Your task to perform on an android device: When is my next appointment? Image 0: 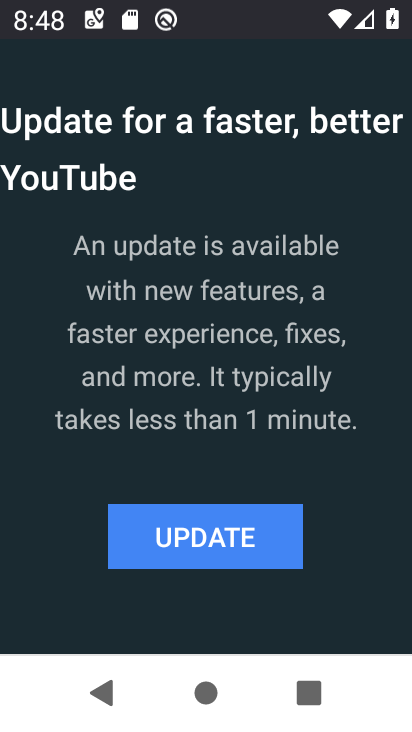
Step 0: press home button
Your task to perform on an android device: When is my next appointment? Image 1: 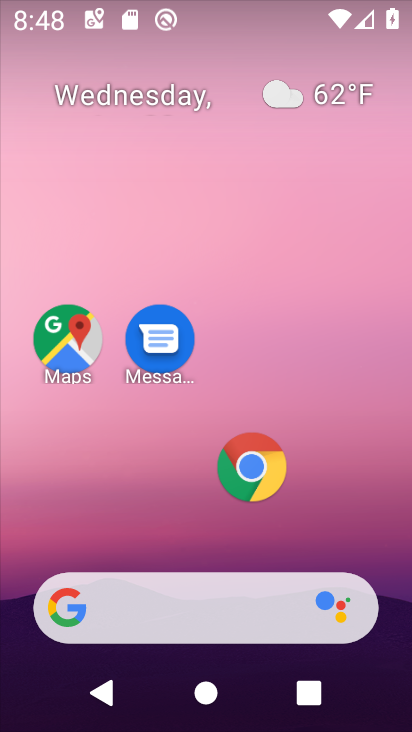
Step 1: drag from (190, 481) to (182, 133)
Your task to perform on an android device: When is my next appointment? Image 2: 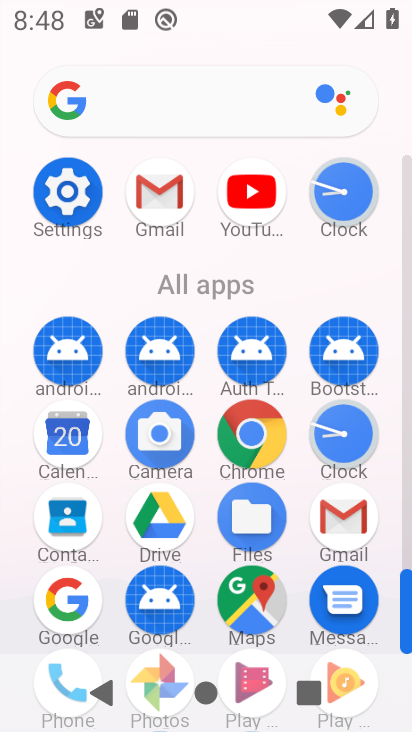
Step 2: click (64, 444)
Your task to perform on an android device: When is my next appointment? Image 3: 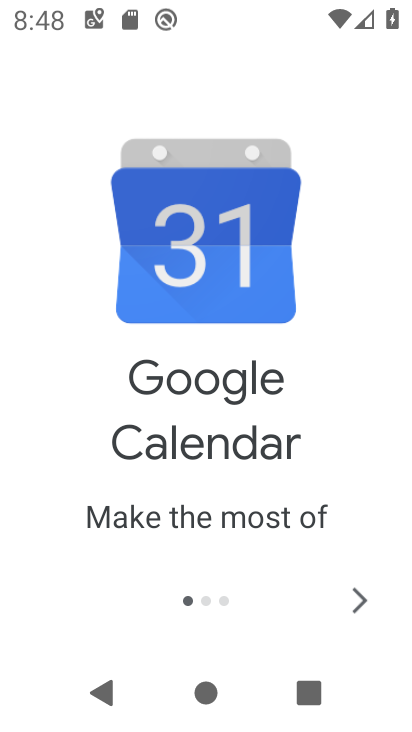
Step 3: click (348, 584)
Your task to perform on an android device: When is my next appointment? Image 4: 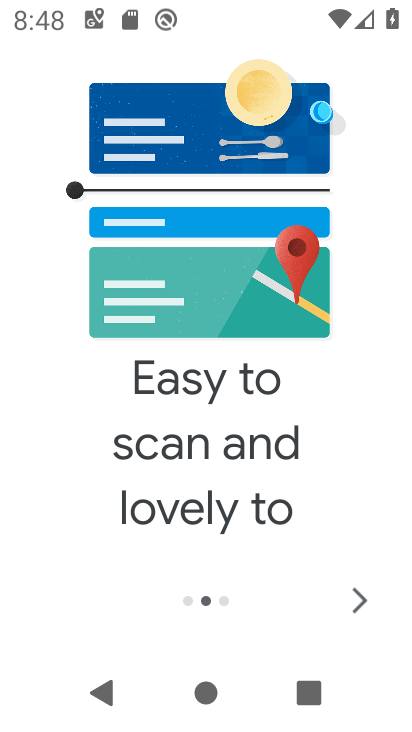
Step 4: click (348, 584)
Your task to perform on an android device: When is my next appointment? Image 5: 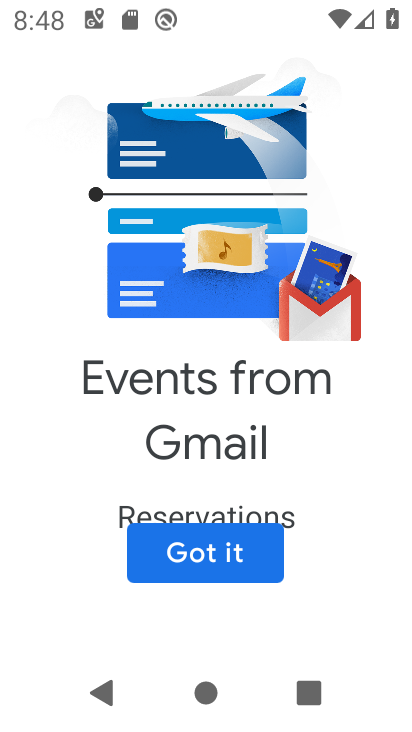
Step 5: click (348, 584)
Your task to perform on an android device: When is my next appointment? Image 6: 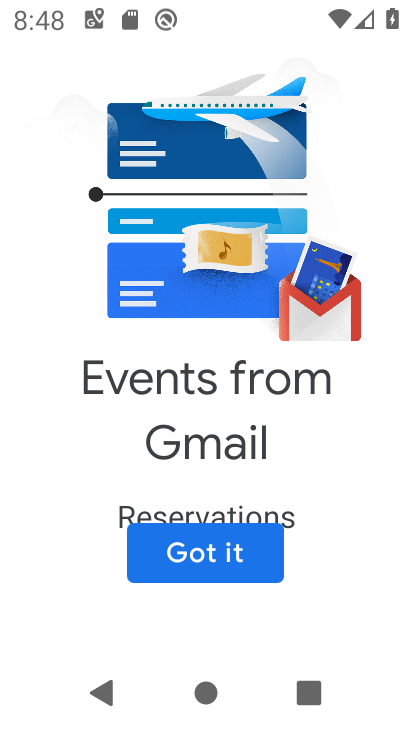
Step 6: click (192, 563)
Your task to perform on an android device: When is my next appointment? Image 7: 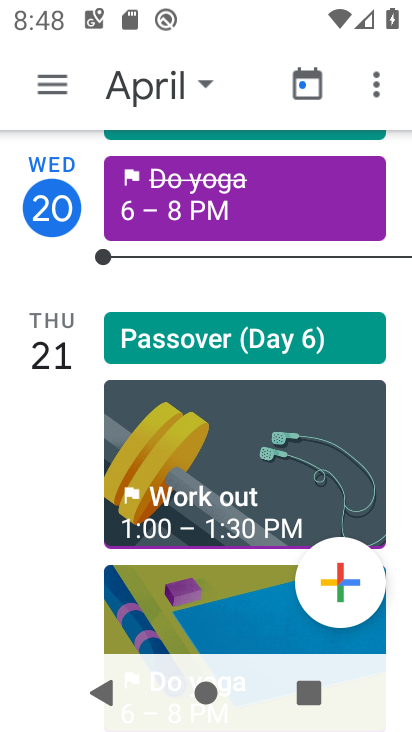
Step 7: click (201, 82)
Your task to perform on an android device: When is my next appointment? Image 8: 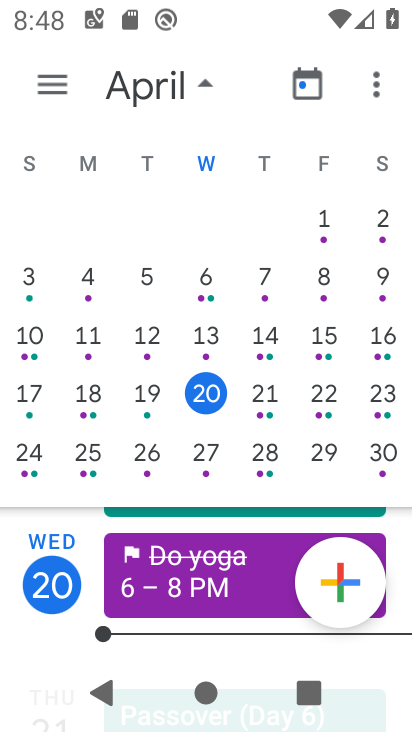
Step 8: click (327, 396)
Your task to perform on an android device: When is my next appointment? Image 9: 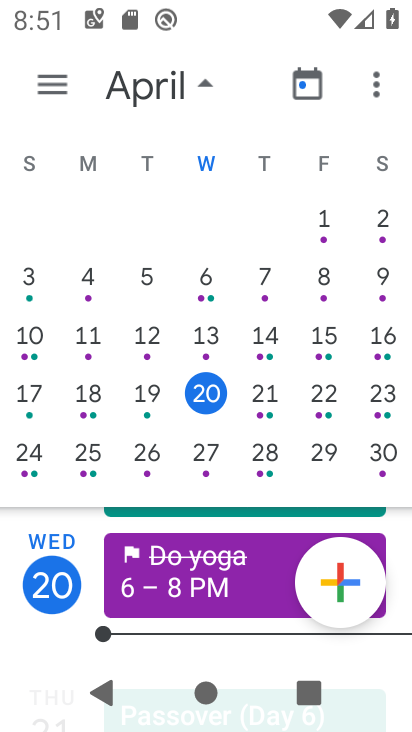
Step 9: task complete